Your task to perform on an android device: see tabs open on other devices in the chrome app Image 0: 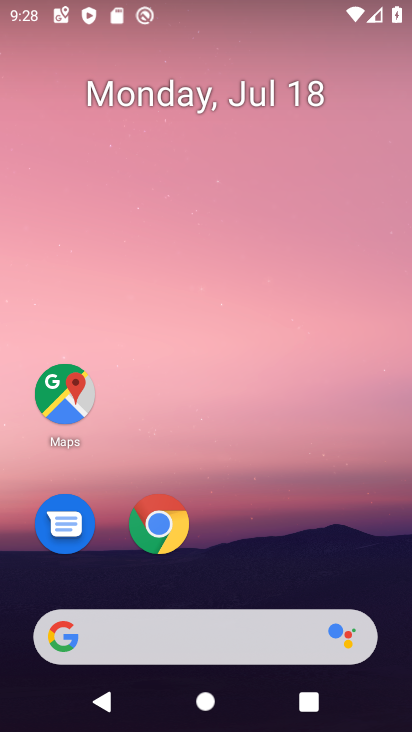
Step 0: click (166, 517)
Your task to perform on an android device: see tabs open on other devices in the chrome app Image 1: 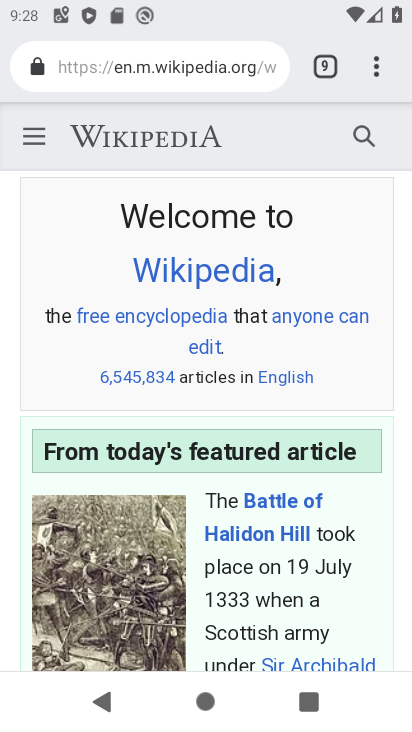
Step 1: click (376, 67)
Your task to perform on an android device: see tabs open on other devices in the chrome app Image 2: 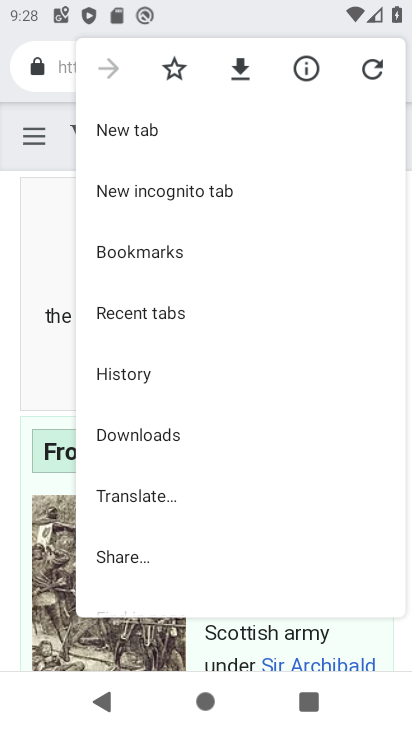
Step 2: click (169, 319)
Your task to perform on an android device: see tabs open on other devices in the chrome app Image 3: 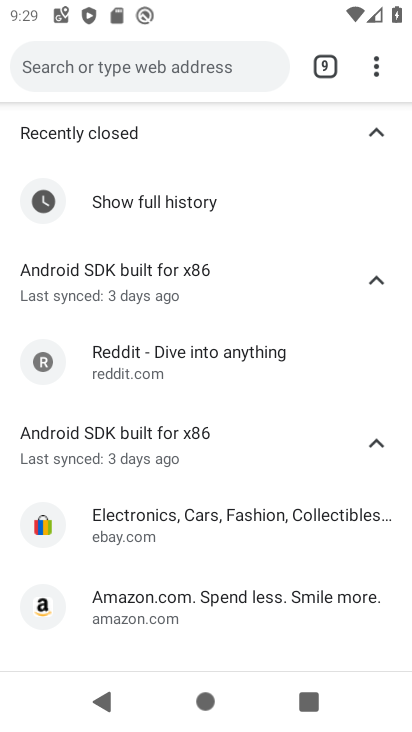
Step 3: task complete